Your task to perform on an android device: change notification settings in the gmail app Image 0: 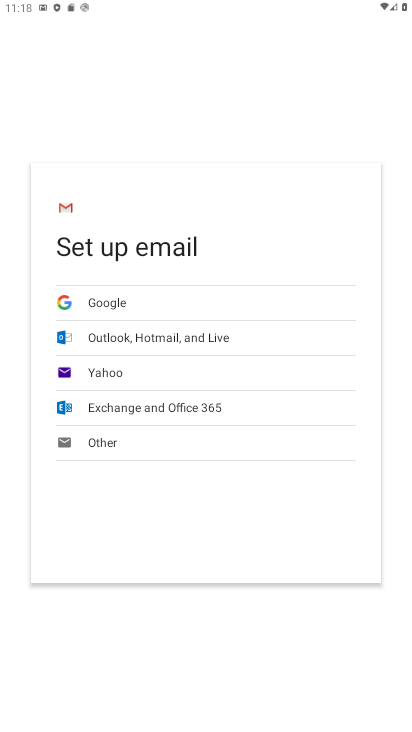
Step 0: press home button
Your task to perform on an android device: change notification settings in the gmail app Image 1: 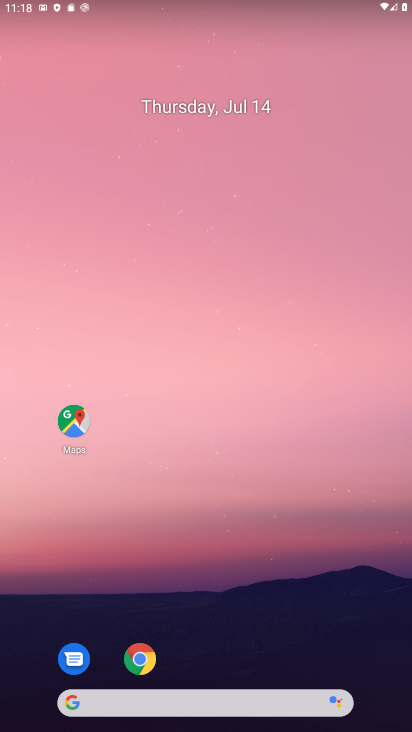
Step 1: drag from (208, 674) to (211, 149)
Your task to perform on an android device: change notification settings in the gmail app Image 2: 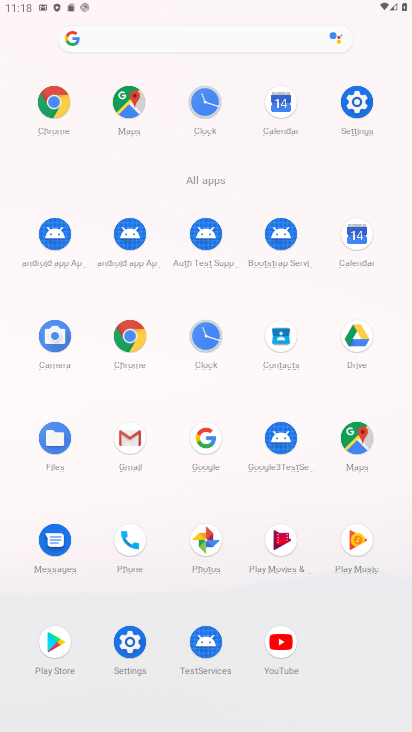
Step 2: click (132, 433)
Your task to perform on an android device: change notification settings in the gmail app Image 3: 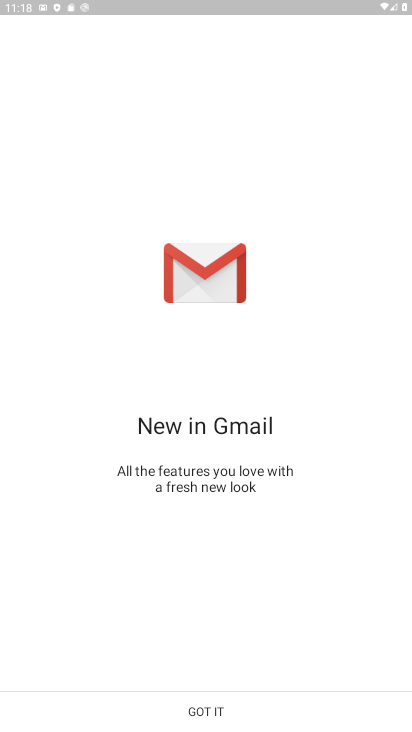
Step 3: click (191, 707)
Your task to perform on an android device: change notification settings in the gmail app Image 4: 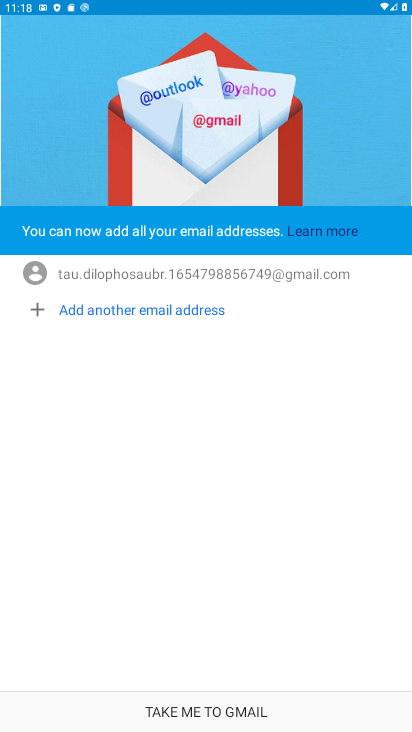
Step 4: click (183, 700)
Your task to perform on an android device: change notification settings in the gmail app Image 5: 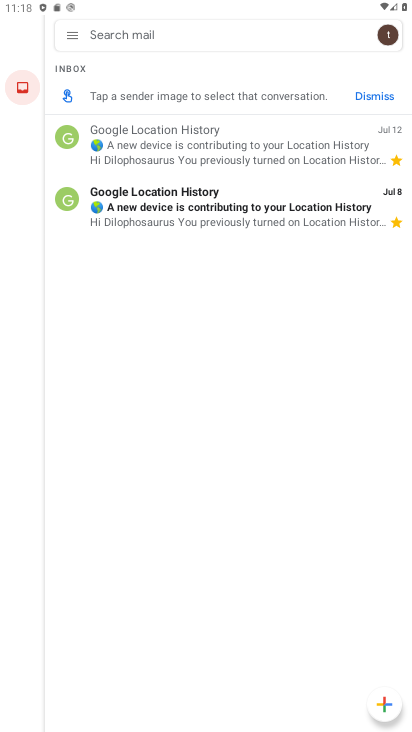
Step 5: click (78, 33)
Your task to perform on an android device: change notification settings in the gmail app Image 6: 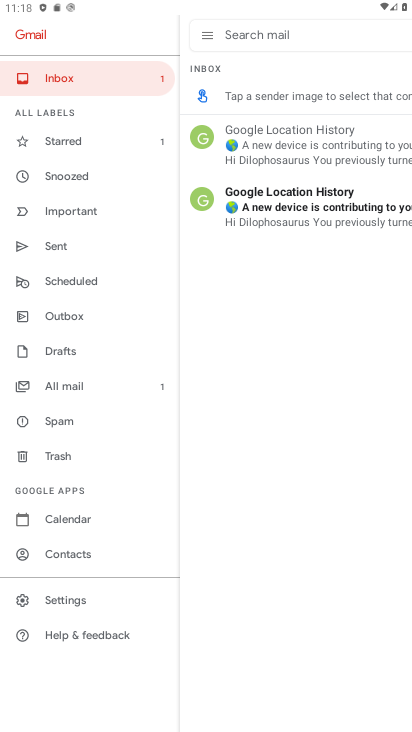
Step 6: click (78, 602)
Your task to perform on an android device: change notification settings in the gmail app Image 7: 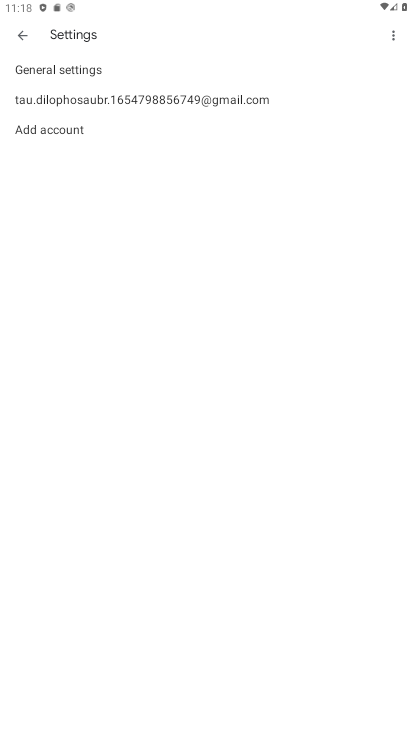
Step 7: click (74, 102)
Your task to perform on an android device: change notification settings in the gmail app Image 8: 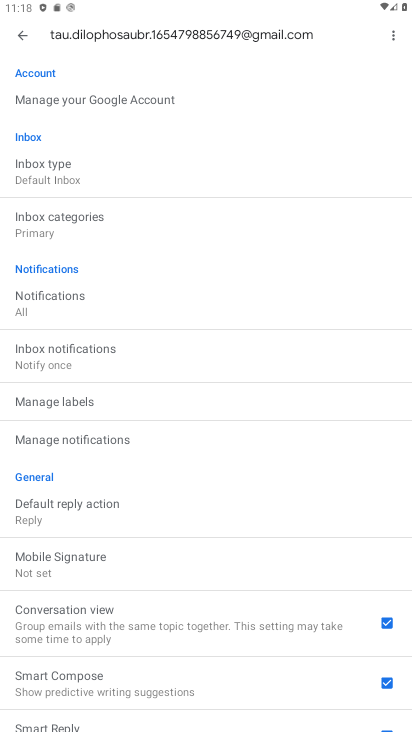
Step 8: click (81, 287)
Your task to perform on an android device: change notification settings in the gmail app Image 9: 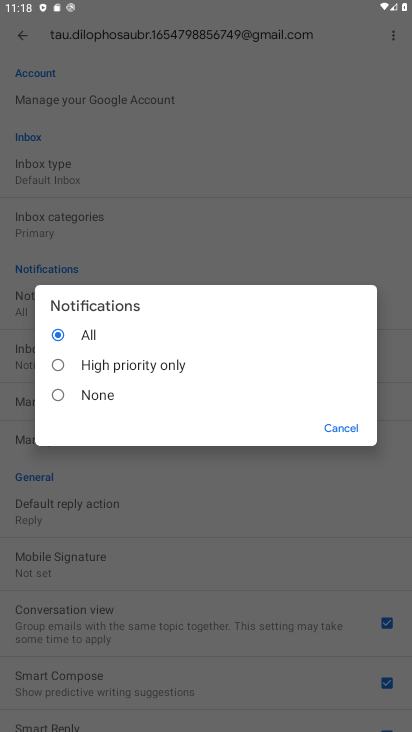
Step 9: click (103, 398)
Your task to perform on an android device: change notification settings in the gmail app Image 10: 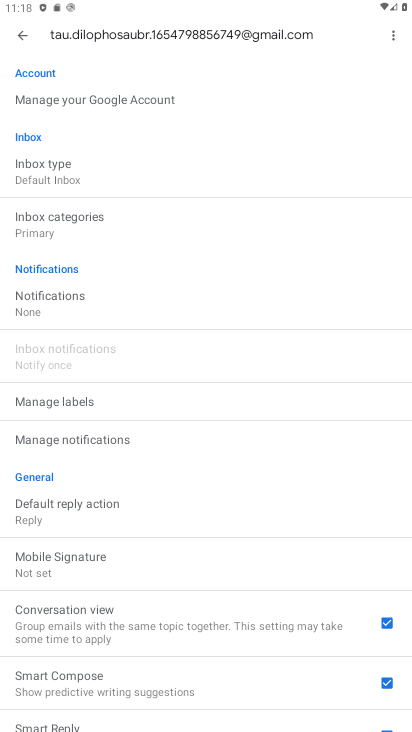
Step 10: task complete